Your task to perform on an android device: Is it going to rain this weekend? Image 0: 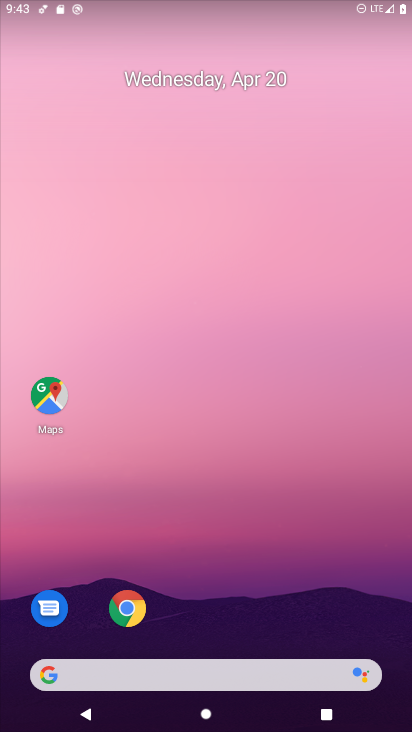
Step 0: click (178, 676)
Your task to perform on an android device: Is it going to rain this weekend? Image 1: 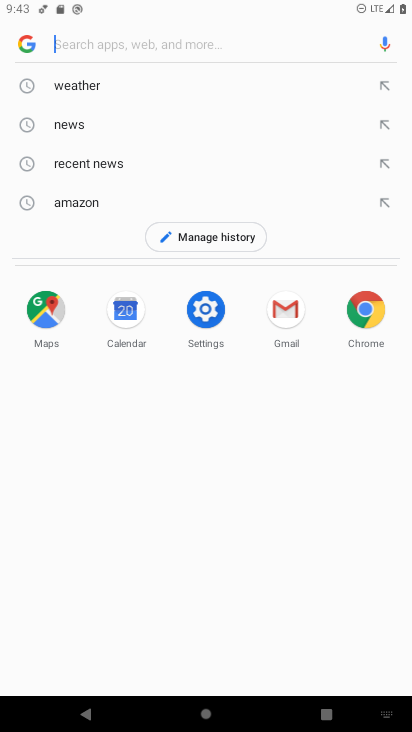
Step 1: click (83, 78)
Your task to perform on an android device: Is it going to rain this weekend? Image 2: 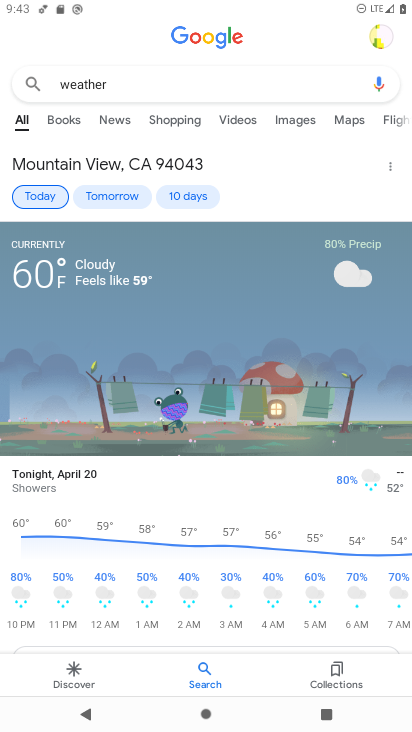
Step 2: click (183, 197)
Your task to perform on an android device: Is it going to rain this weekend? Image 3: 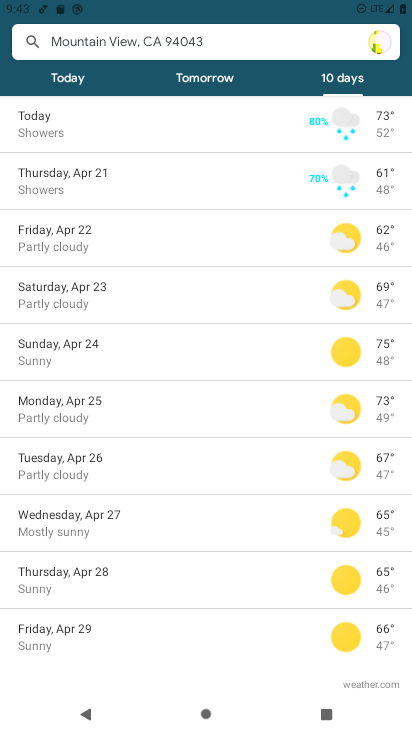
Step 3: task complete